Your task to perform on an android device: Go to notification settings Image 0: 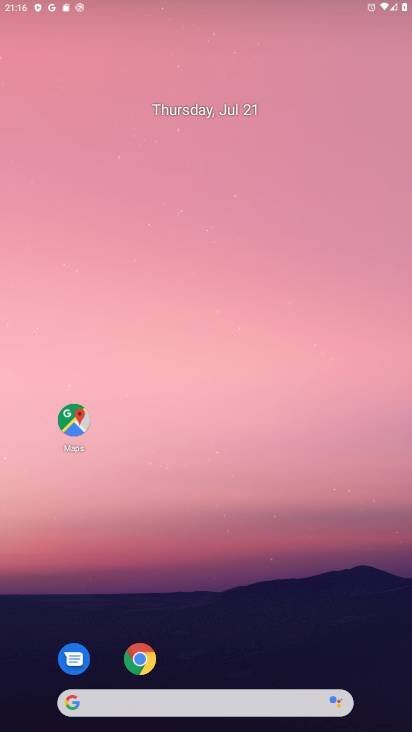
Step 0: press home button
Your task to perform on an android device: Go to notification settings Image 1: 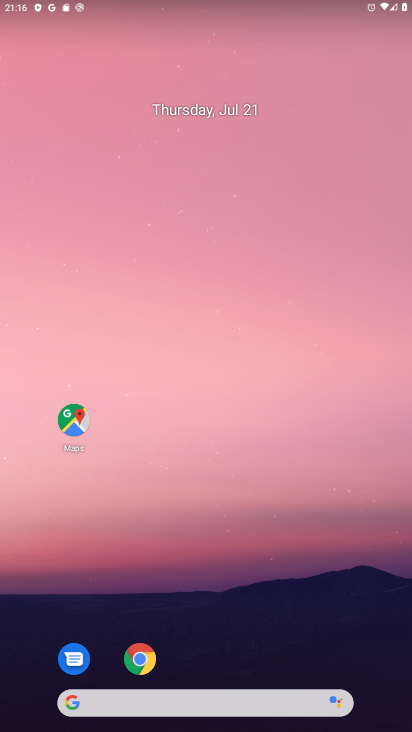
Step 1: press home button
Your task to perform on an android device: Go to notification settings Image 2: 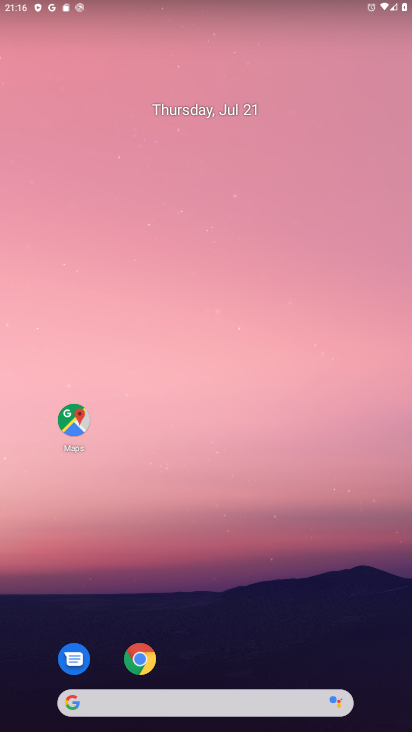
Step 2: drag from (202, 621) to (246, 31)
Your task to perform on an android device: Go to notification settings Image 3: 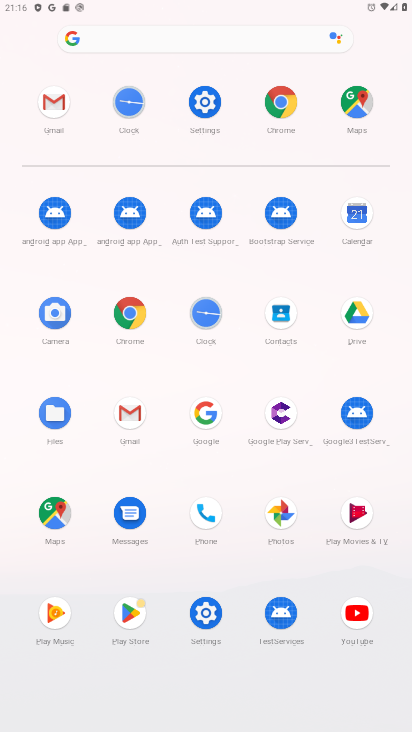
Step 3: click (213, 102)
Your task to perform on an android device: Go to notification settings Image 4: 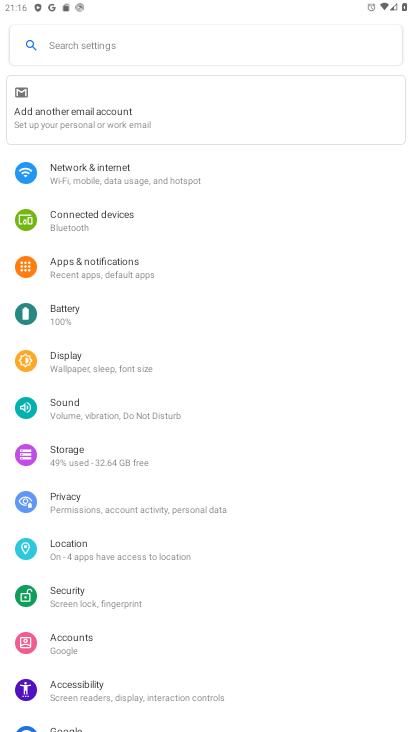
Step 4: click (47, 273)
Your task to perform on an android device: Go to notification settings Image 5: 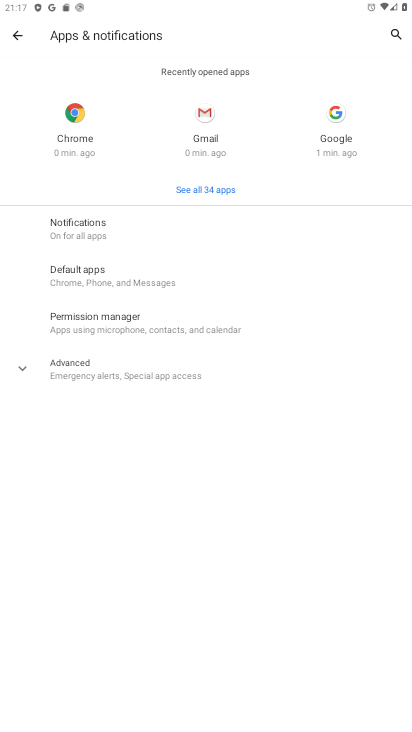
Step 5: click (101, 235)
Your task to perform on an android device: Go to notification settings Image 6: 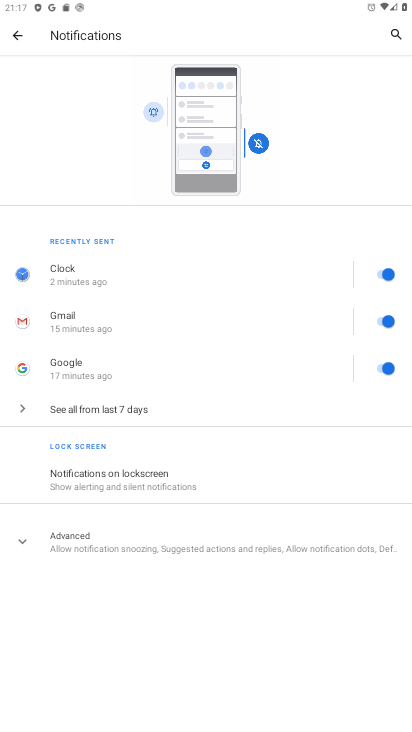
Step 6: task complete